Your task to perform on an android device: read, delete, or share a saved page in the chrome app Image 0: 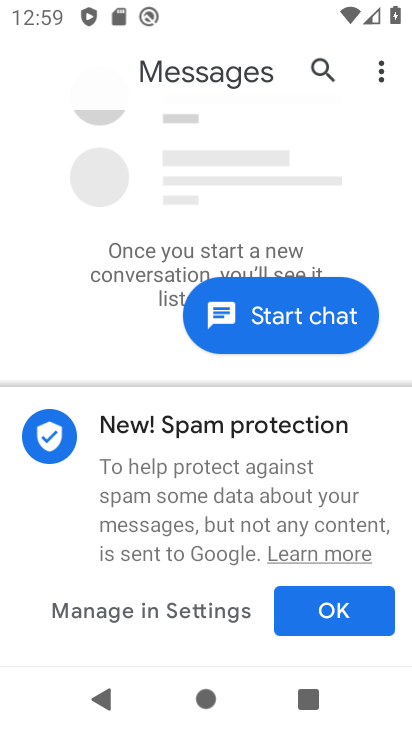
Step 0: press home button
Your task to perform on an android device: read, delete, or share a saved page in the chrome app Image 1: 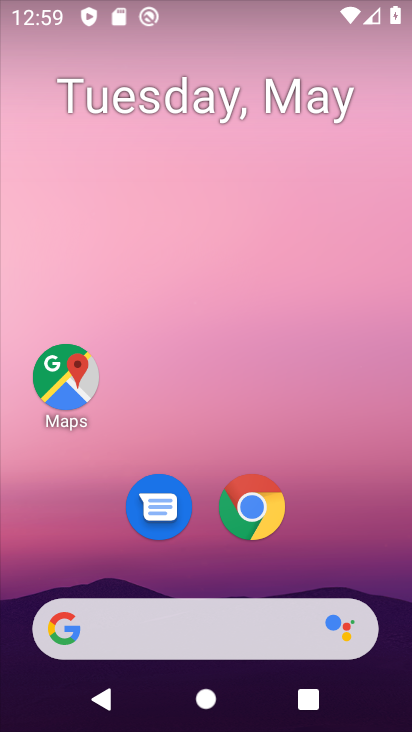
Step 1: click (279, 521)
Your task to perform on an android device: read, delete, or share a saved page in the chrome app Image 2: 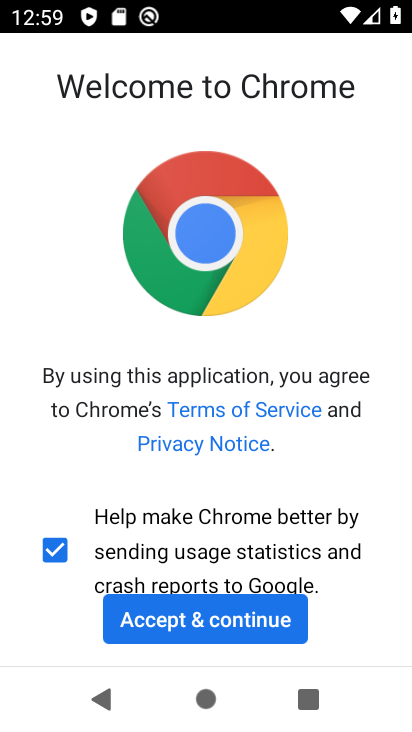
Step 2: click (241, 627)
Your task to perform on an android device: read, delete, or share a saved page in the chrome app Image 3: 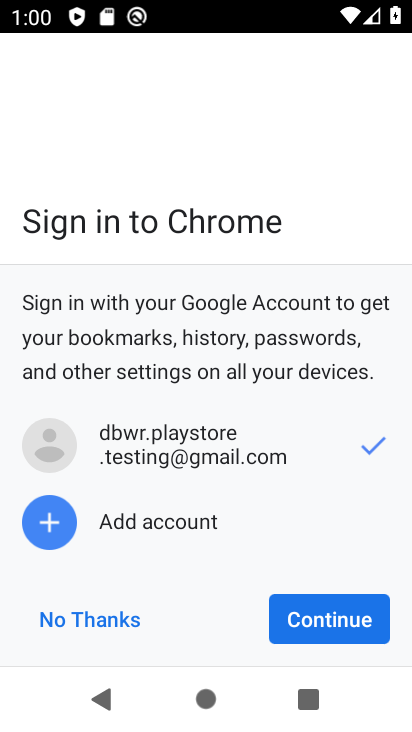
Step 3: click (294, 624)
Your task to perform on an android device: read, delete, or share a saved page in the chrome app Image 4: 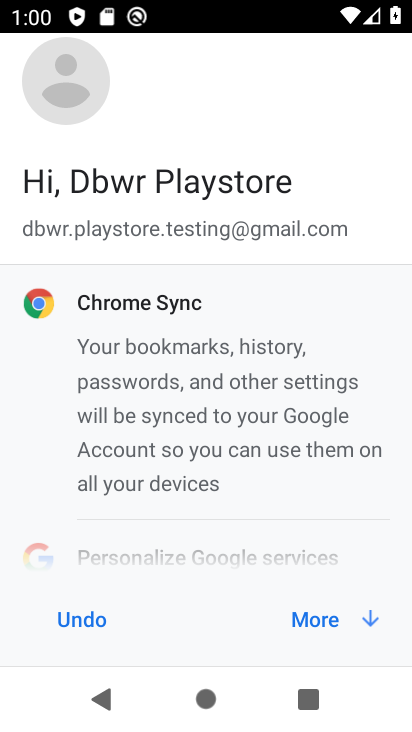
Step 4: click (302, 597)
Your task to perform on an android device: read, delete, or share a saved page in the chrome app Image 5: 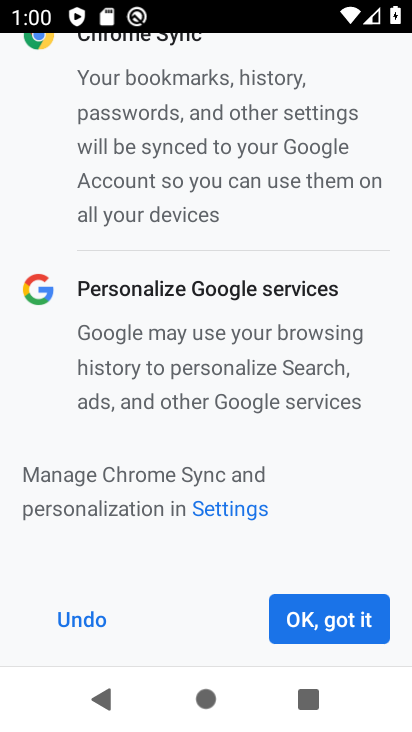
Step 5: click (302, 597)
Your task to perform on an android device: read, delete, or share a saved page in the chrome app Image 6: 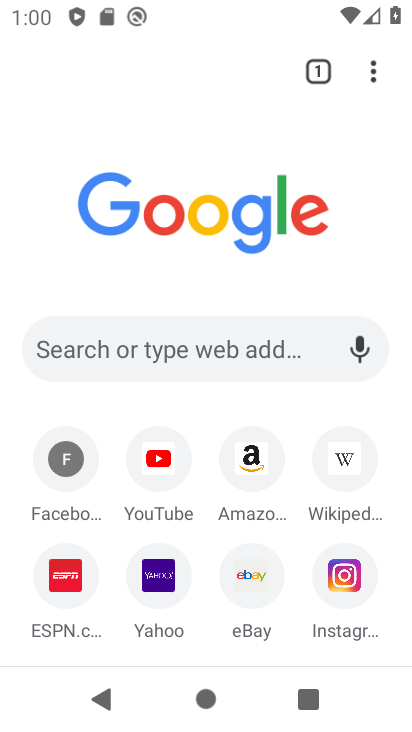
Step 6: click (373, 86)
Your task to perform on an android device: read, delete, or share a saved page in the chrome app Image 7: 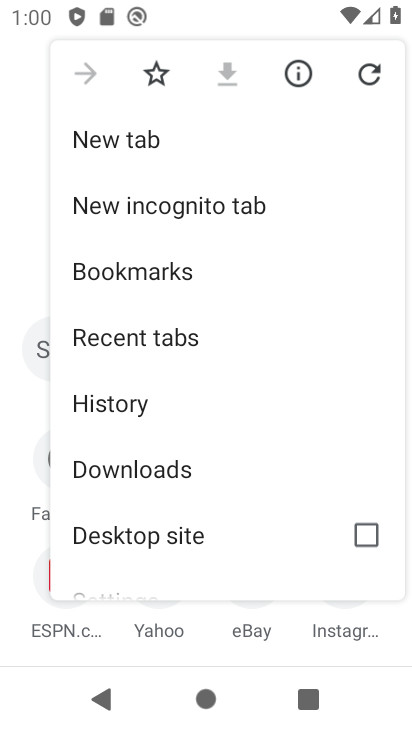
Step 7: click (180, 458)
Your task to perform on an android device: read, delete, or share a saved page in the chrome app Image 8: 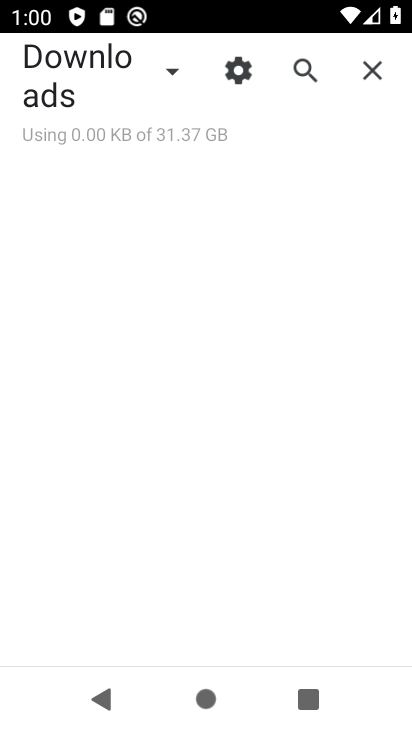
Step 8: click (154, 80)
Your task to perform on an android device: read, delete, or share a saved page in the chrome app Image 9: 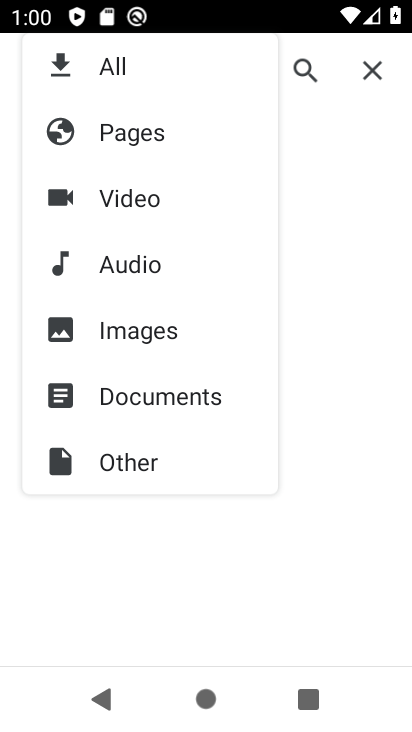
Step 9: click (151, 134)
Your task to perform on an android device: read, delete, or share a saved page in the chrome app Image 10: 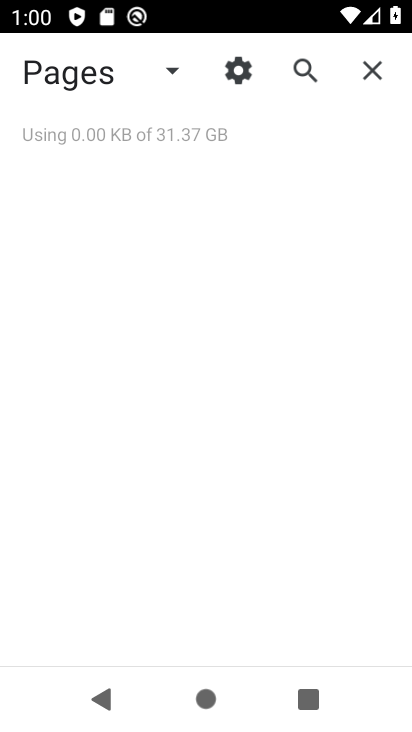
Step 10: task complete